Your task to perform on an android device: turn off location history Image 0: 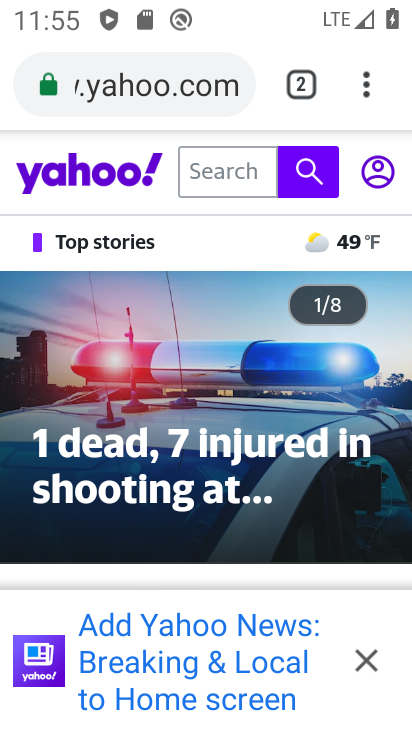
Step 0: press home button
Your task to perform on an android device: turn off location history Image 1: 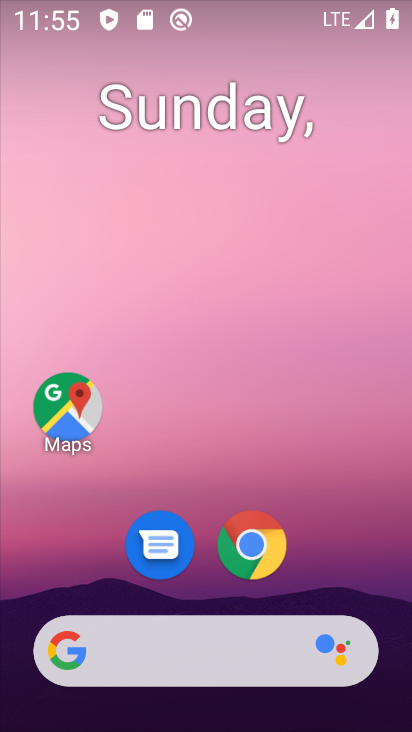
Step 1: drag from (370, 584) to (364, 159)
Your task to perform on an android device: turn off location history Image 2: 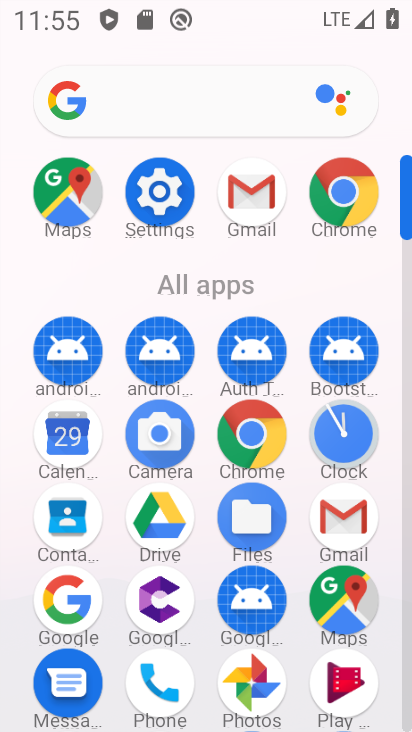
Step 2: click (171, 217)
Your task to perform on an android device: turn off location history Image 3: 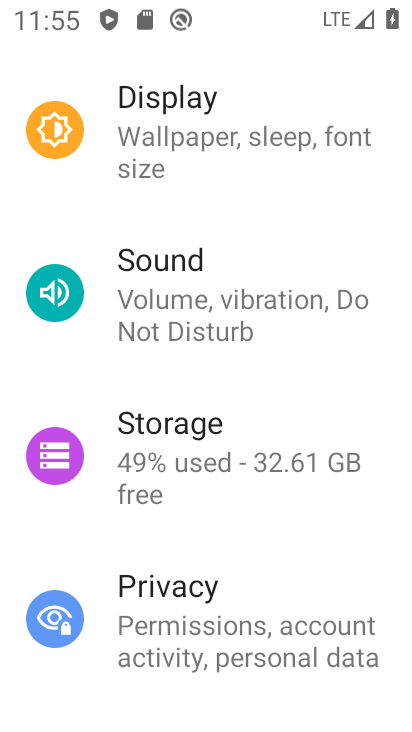
Step 3: drag from (316, 186) to (322, 365)
Your task to perform on an android device: turn off location history Image 4: 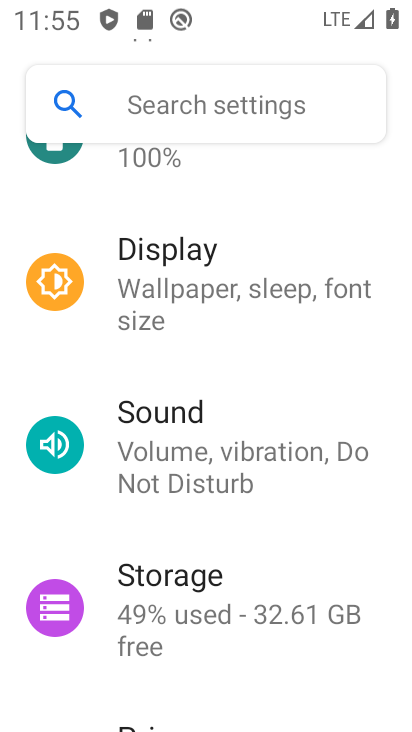
Step 4: drag from (352, 194) to (357, 364)
Your task to perform on an android device: turn off location history Image 5: 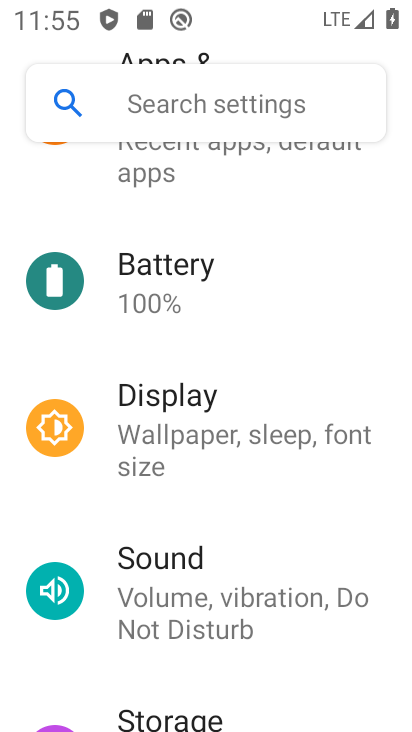
Step 5: drag from (358, 186) to (362, 324)
Your task to perform on an android device: turn off location history Image 6: 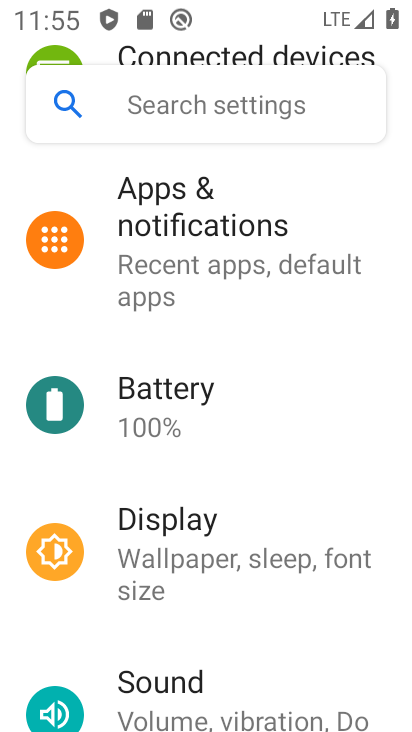
Step 6: drag from (367, 191) to (363, 378)
Your task to perform on an android device: turn off location history Image 7: 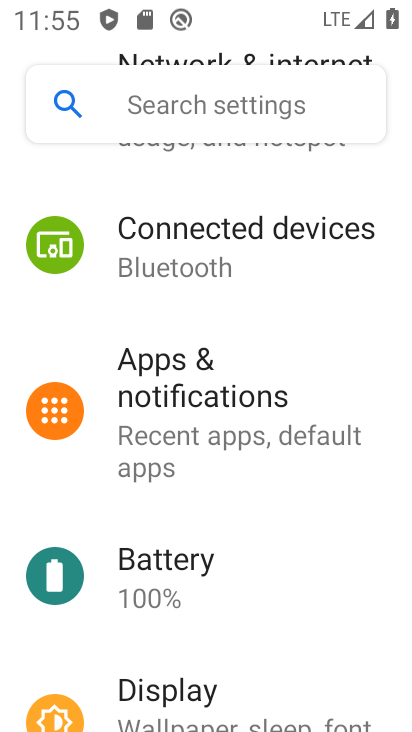
Step 7: drag from (368, 177) to (371, 338)
Your task to perform on an android device: turn off location history Image 8: 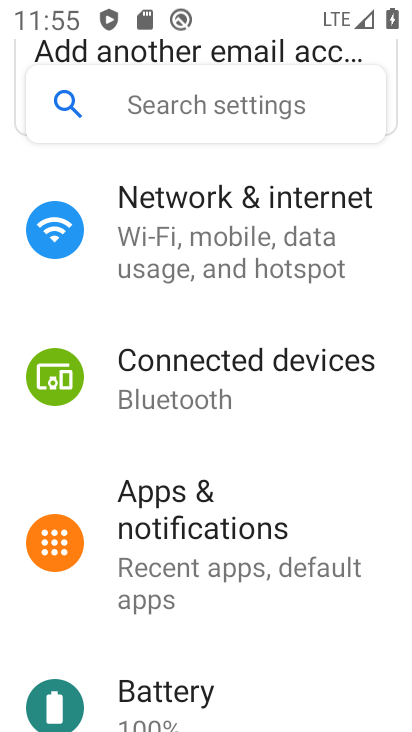
Step 8: drag from (370, 313) to (378, 202)
Your task to perform on an android device: turn off location history Image 9: 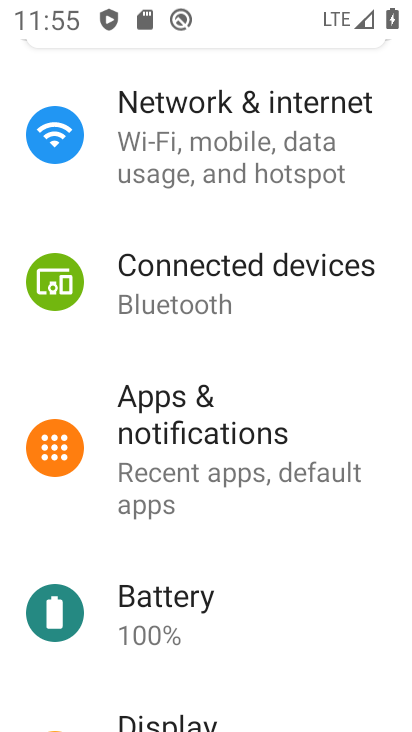
Step 9: drag from (356, 369) to (363, 260)
Your task to perform on an android device: turn off location history Image 10: 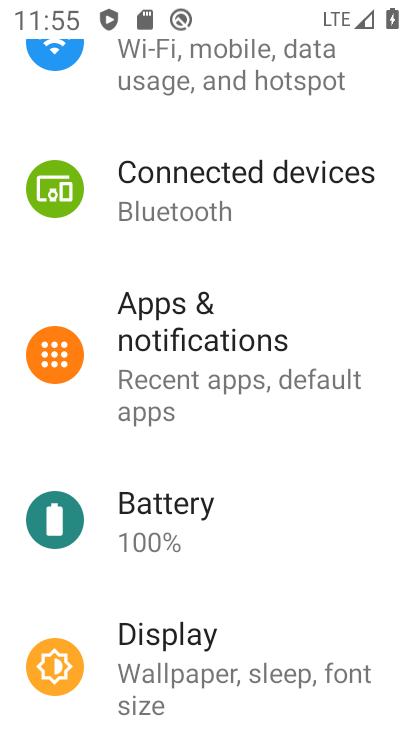
Step 10: drag from (353, 450) to (359, 323)
Your task to perform on an android device: turn off location history Image 11: 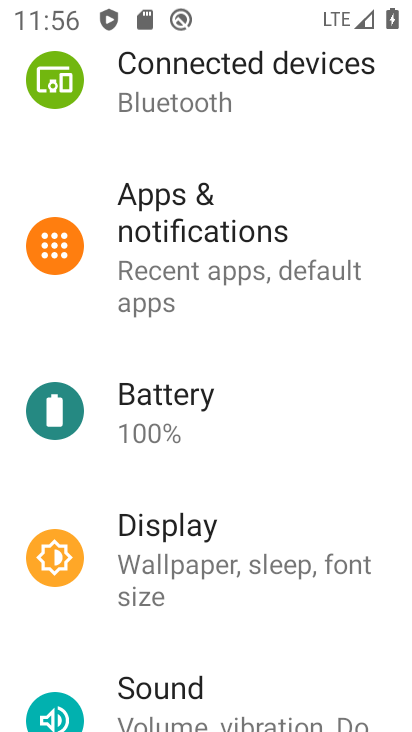
Step 11: drag from (352, 448) to (360, 329)
Your task to perform on an android device: turn off location history Image 12: 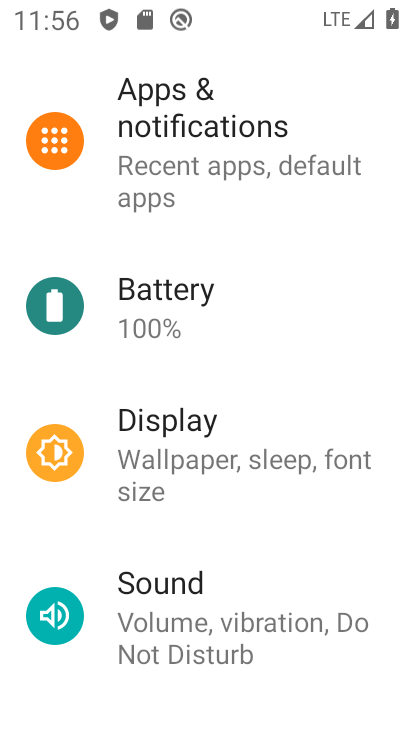
Step 12: drag from (338, 509) to (346, 383)
Your task to perform on an android device: turn off location history Image 13: 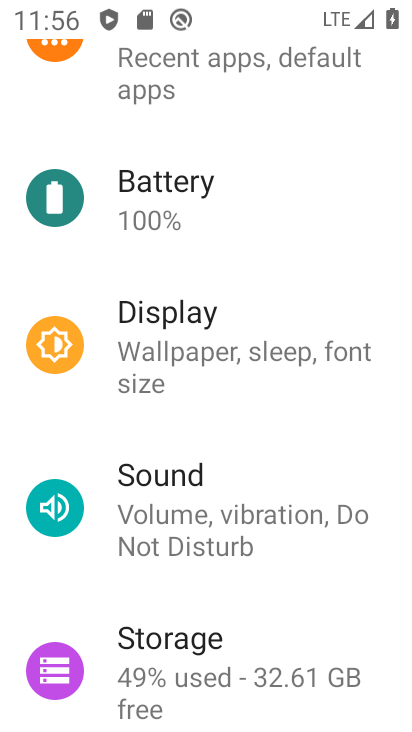
Step 13: drag from (334, 543) to (339, 438)
Your task to perform on an android device: turn off location history Image 14: 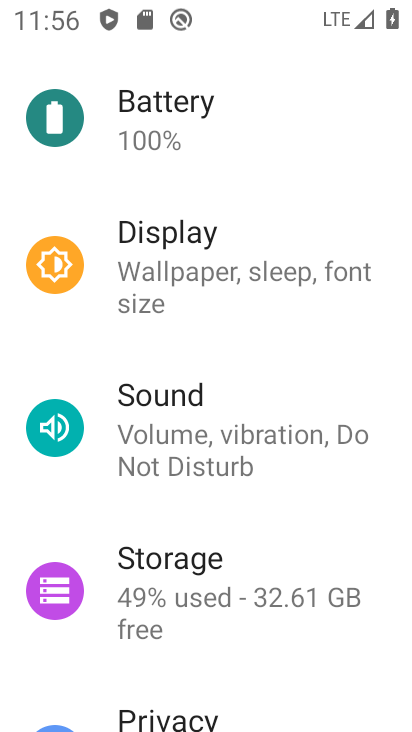
Step 14: drag from (321, 559) to (322, 421)
Your task to perform on an android device: turn off location history Image 15: 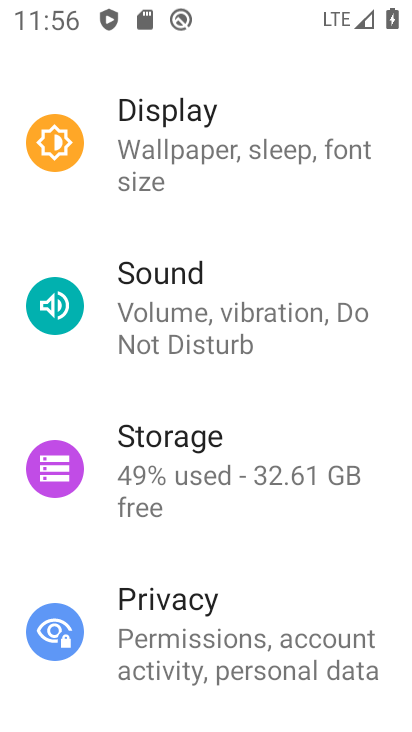
Step 15: drag from (311, 585) to (324, 448)
Your task to perform on an android device: turn off location history Image 16: 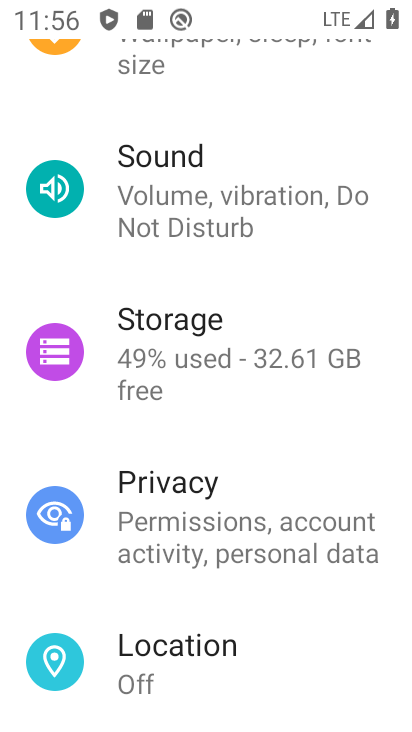
Step 16: drag from (330, 614) to (339, 434)
Your task to perform on an android device: turn off location history Image 17: 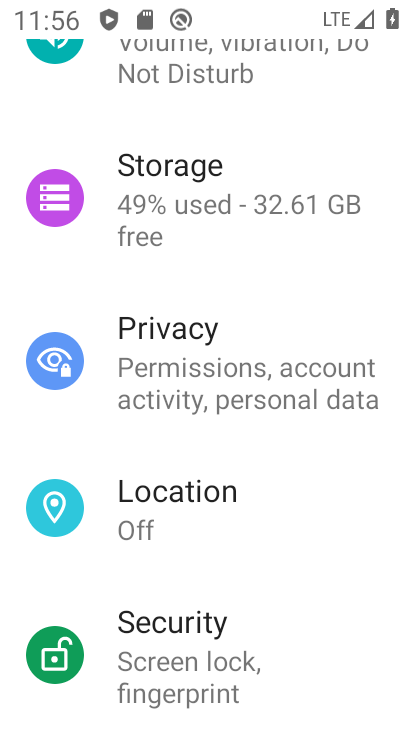
Step 17: click (191, 509)
Your task to perform on an android device: turn off location history Image 18: 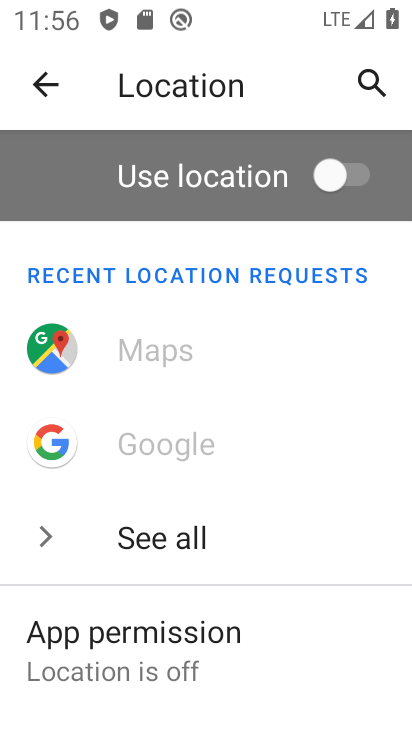
Step 18: task complete